Your task to perform on an android device: open the mobile data screen to see how much data has been used Image 0: 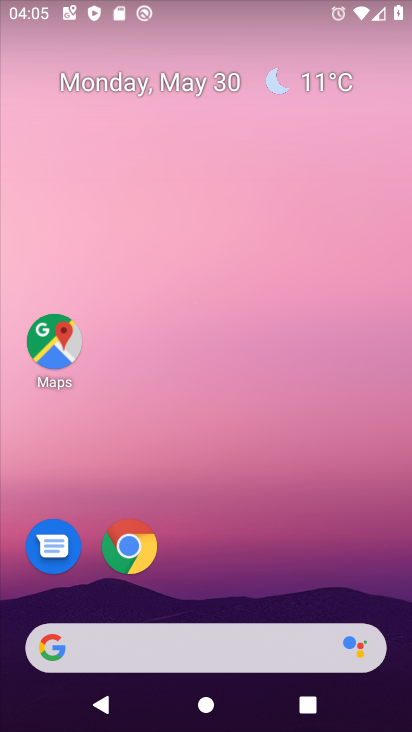
Step 0: press home button
Your task to perform on an android device: open the mobile data screen to see how much data has been used Image 1: 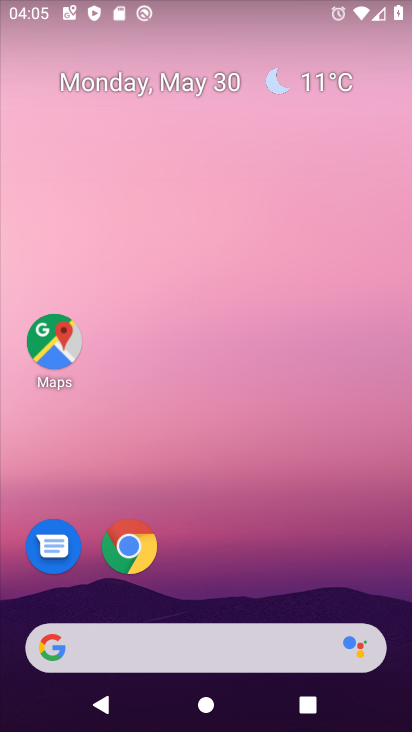
Step 1: drag from (227, 606) to (250, 32)
Your task to perform on an android device: open the mobile data screen to see how much data has been used Image 2: 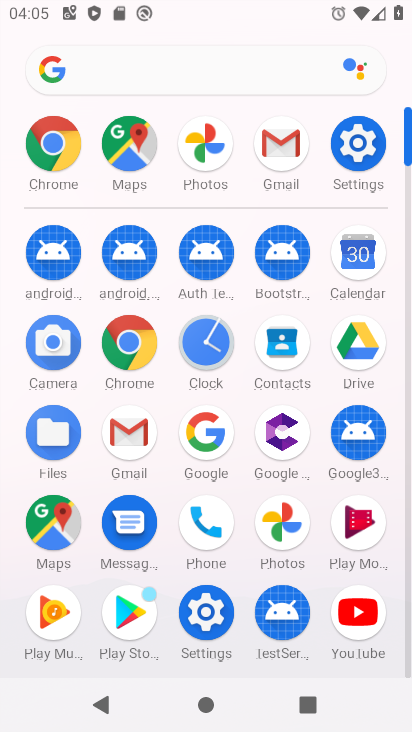
Step 2: click (358, 136)
Your task to perform on an android device: open the mobile data screen to see how much data has been used Image 3: 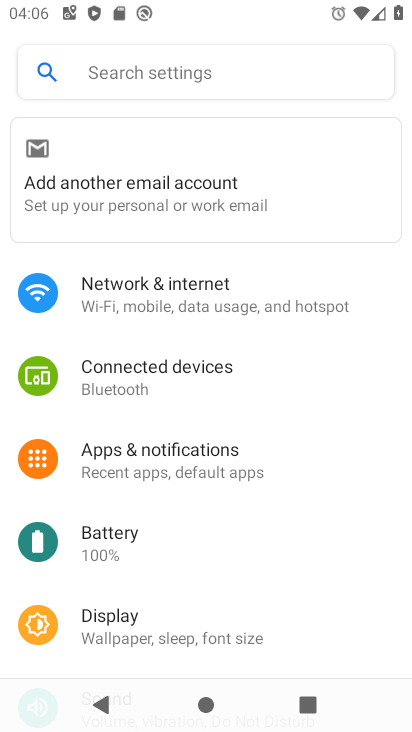
Step 3: click (156, 286)
Your task to perform on an android device: open the mobile data screen to see how much data has been used Image 4: 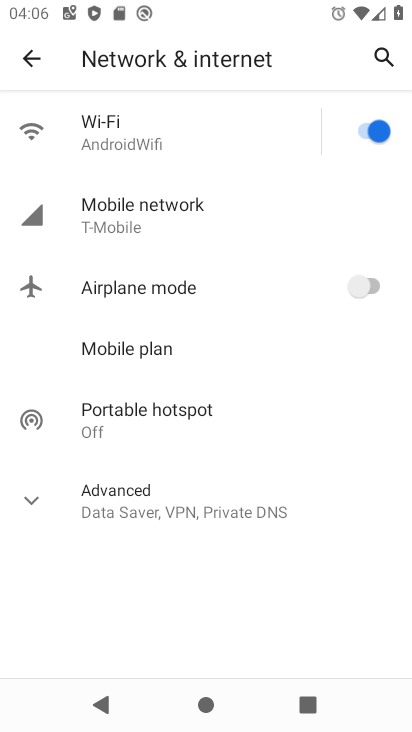
Step 4: click (151, 216)
Your task to perform on an android device: open the mobile data screen to see how much data has been used Image 5: 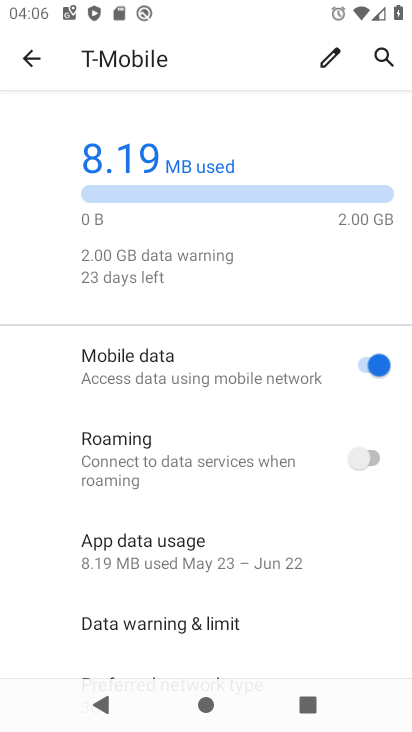
Step 5: click (173, 557)
Your task to perform on an android device: open the mobile data screen to see how much data has been used Image 6: 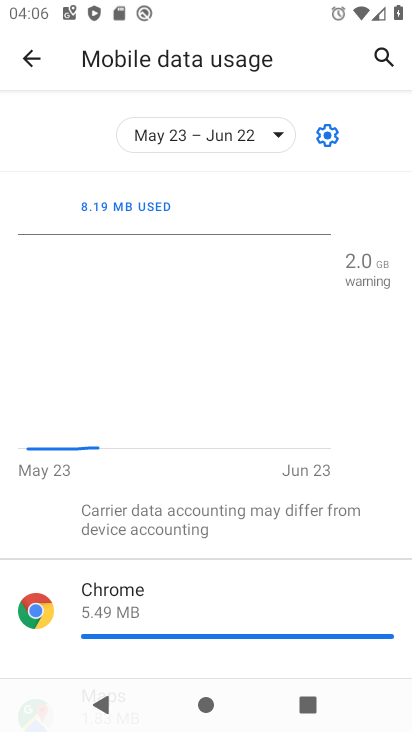
Step 6: task complete